Your task to perform on an android device: turn on translation in the chrome app Image 0: 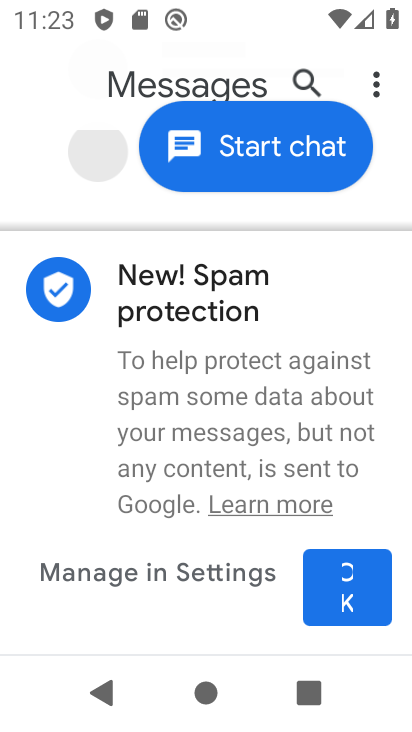
Step 0: press home button
Your task to perform on an android device: turn on translation in the chrome app Image 1: 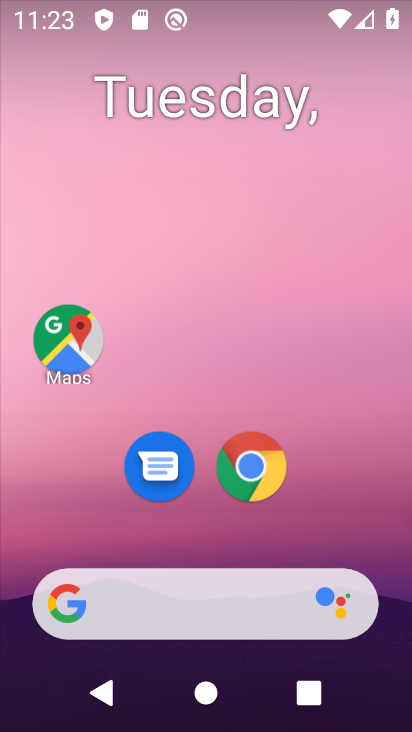
Step 1: drag from (188, 553) to (146, 32)
Your task to perform on an android device: turn on translation in the chrome app Image 2: 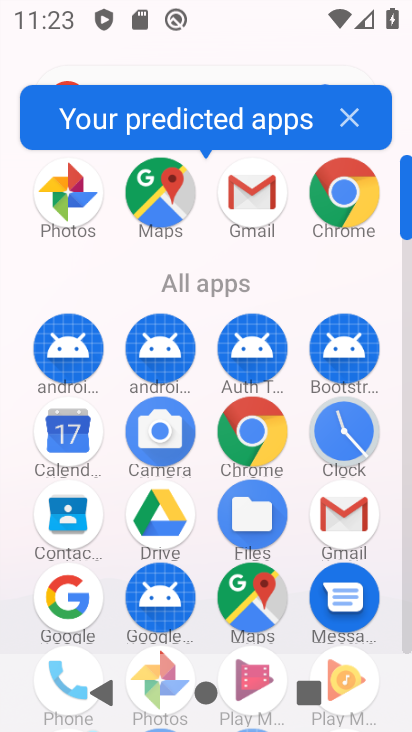
Step 2: click (232, 430)
Your task to perform on an android device: turn on translation in the chrome app Image 3: 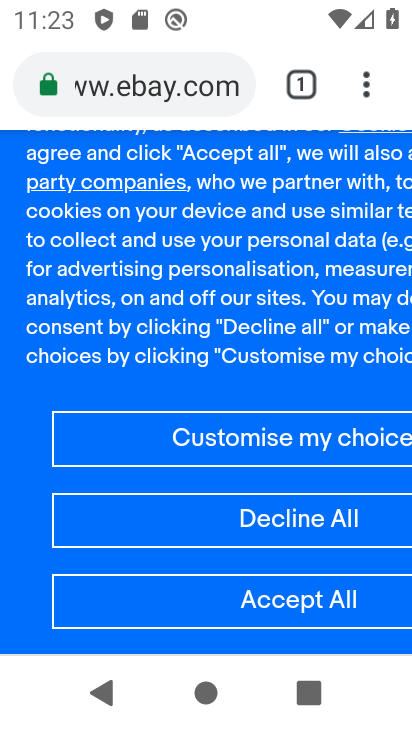
Step 3: click (366, 94)
Your task to perform on an android device: turn on translation in the chrome app Image 4: 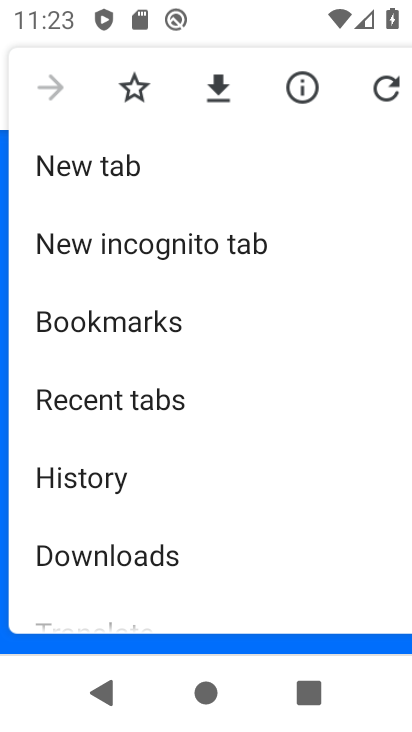
Step 4: drag from (161, 569) to (110, 218)
Your task to perform on an android device: turn on translation in the chrome app Image 5: 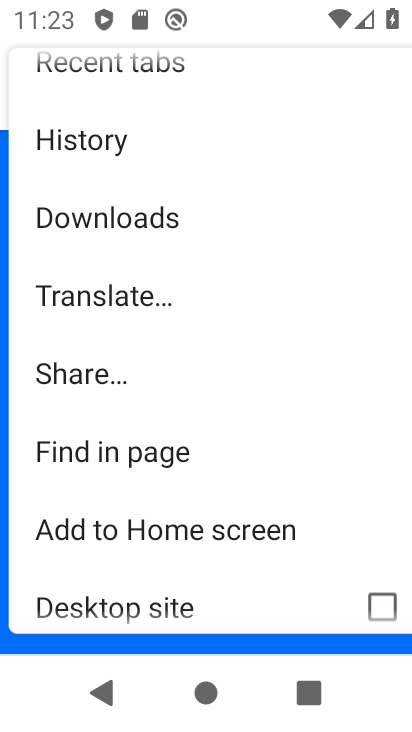
Step 5: drag from (167, 535) to (129, 229)
Your task to perform on an android device: turn on translation in the chrome app Image 6: 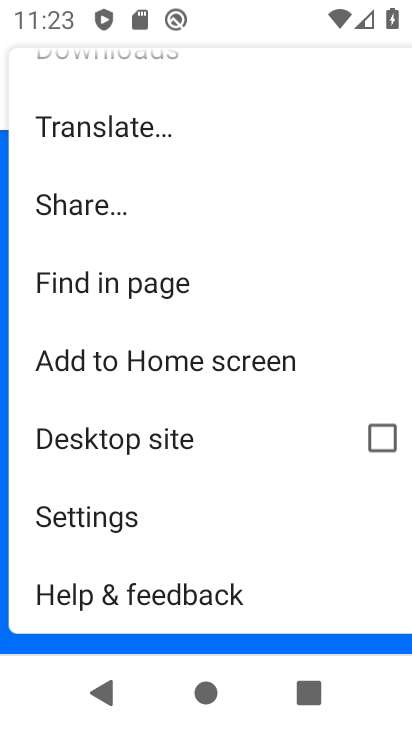
Step 6: click (112, 518)
Your task to perform on an android device: turn on translation in the chrome app Image 7: 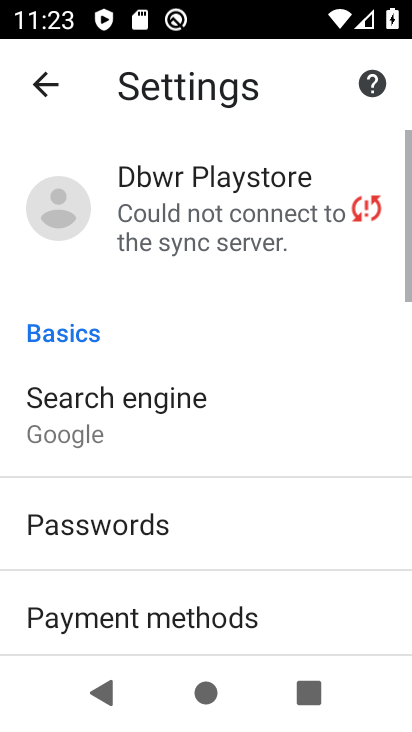
Step 7: drag from (130, 510) to (88, 164)
Your task to perform on an android device: turn on translation in the chrome app Image 8: 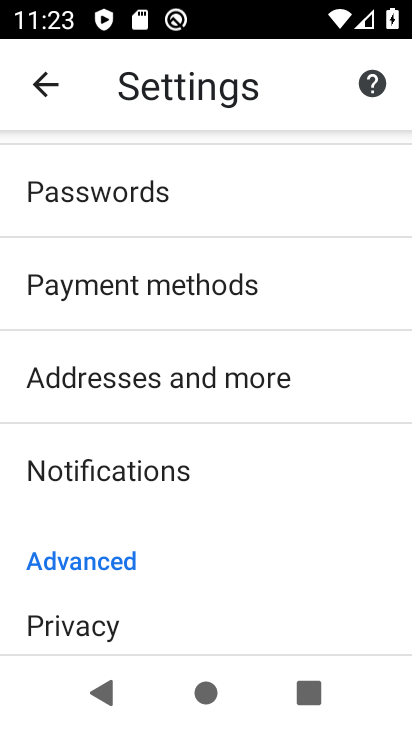
Step 8: drag from (159, 525) to (126, 205)
Your task to perform on an android device: turn on translation in the chrome app Image 9: 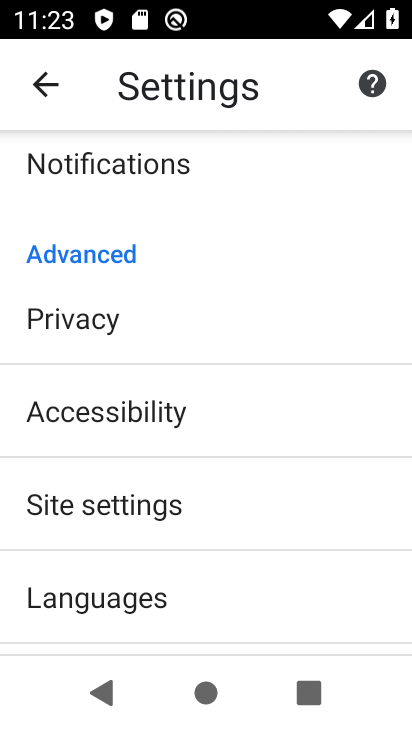
Step 9: drag from (151, 564) to (113, 284)
Your task to perform on an android device: turn on translation in the chrome app Image 10: 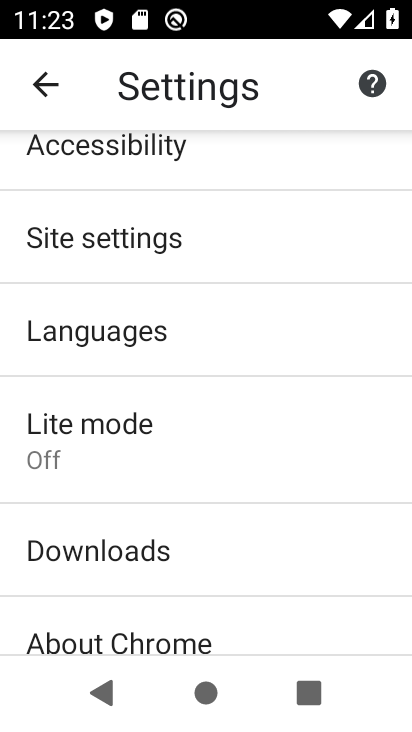
Step 10: click (113, 358)
Your task to perform on an android device: turn on translation in the chrome app Image 11: 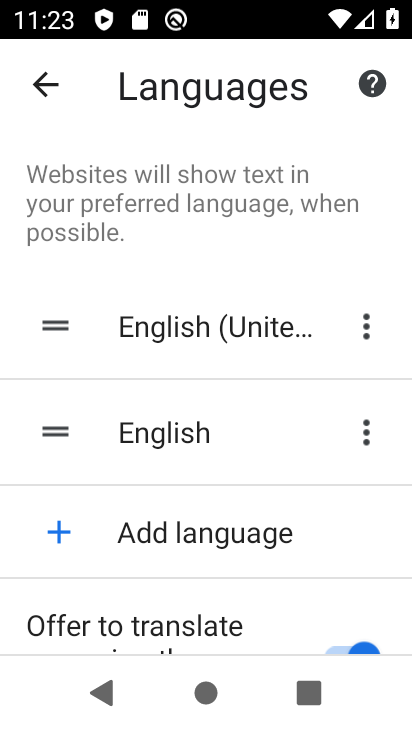
Step 11: task complete